Your task to perform on an android device: When is my next appointment? Image 0: 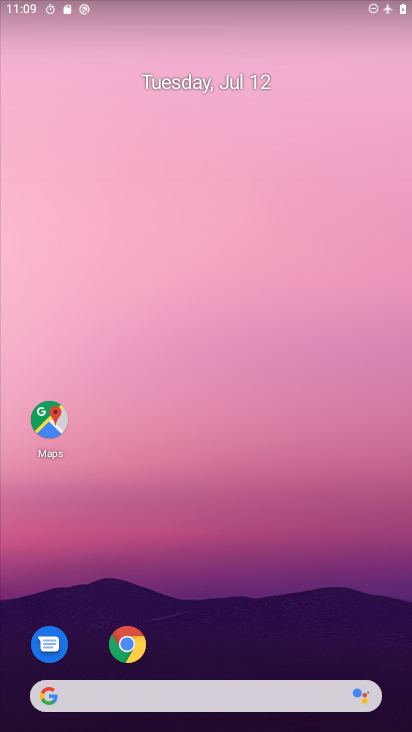
Step 0: drag from (206, 621) to (210, 122)
Your task to perform on an android device: When is my next appointment? Image 1: 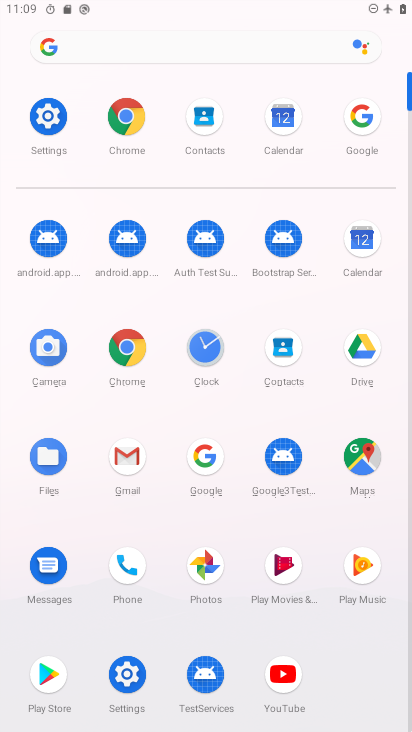
Step 1: click (332, 242)
Your task to perform on an android device: When is my next appointment? Image 2: 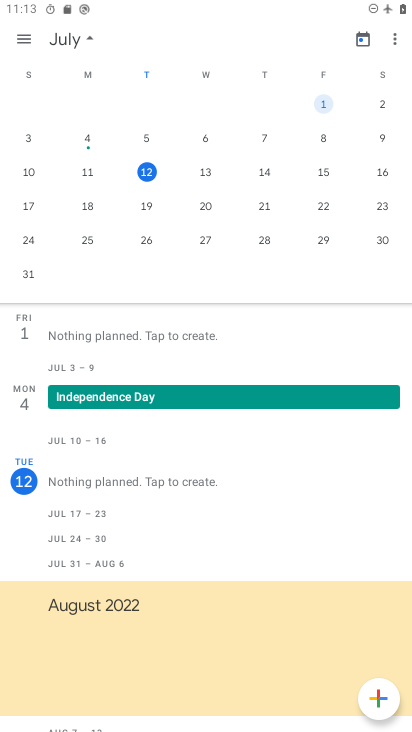
Step 2: task complete